Your task to perform on an android device: change alarm snooze length Image 0: 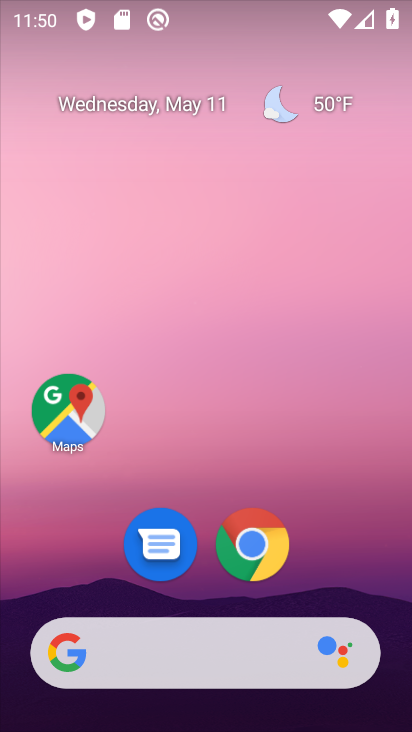
Step 0: click (237, 571)
Your task to perform on an android device: change alarm snooze length Image 1: 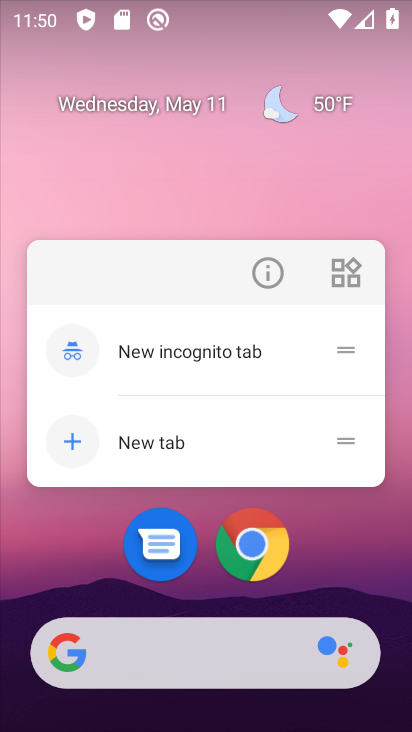
Step 1: click (268, 276)
Your task to perform on an android device: change alarm snooze length Image 2: 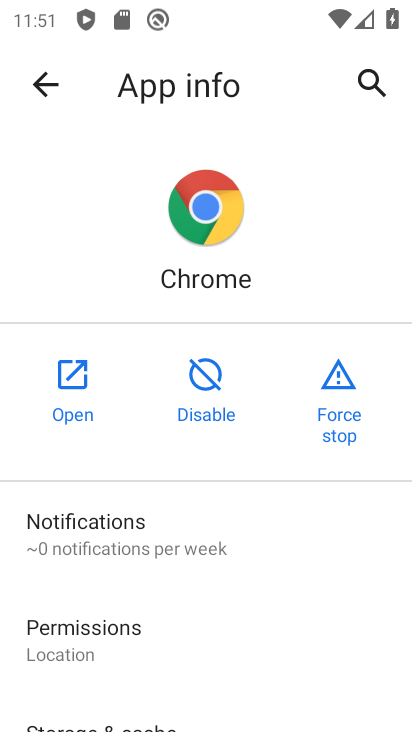
Step 2: press home button
Your task to perform on an android device: change alarm snooze length Image 3: 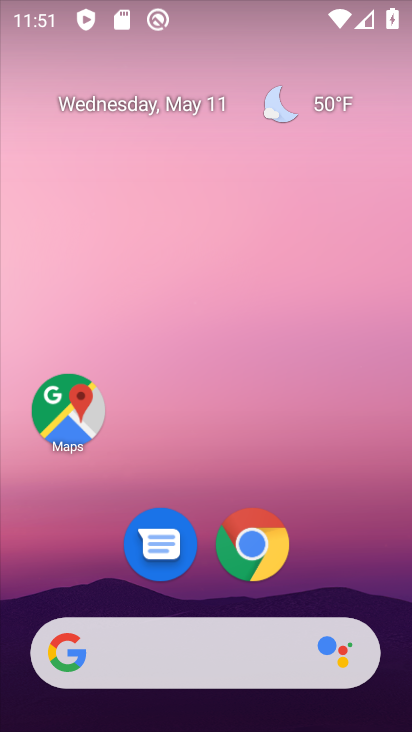
Step 3: drag from (206, 629) to (169, 184)
Your task to perform on an android device: change alarm snooze length Image 4: 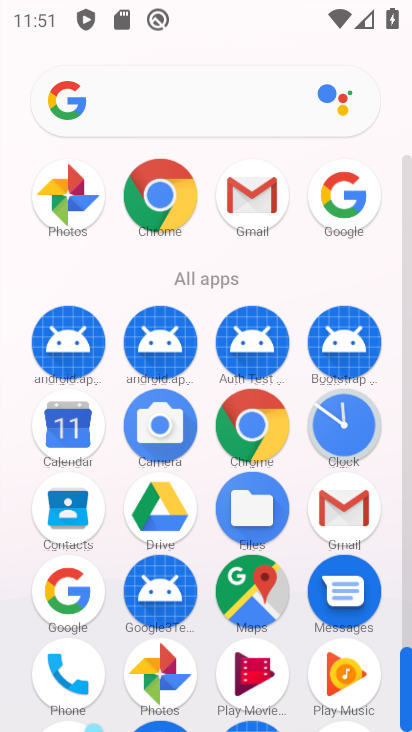
Step 4: click (332, 425)
Your task to perform on an android device: change alarm snooze length Image 5: 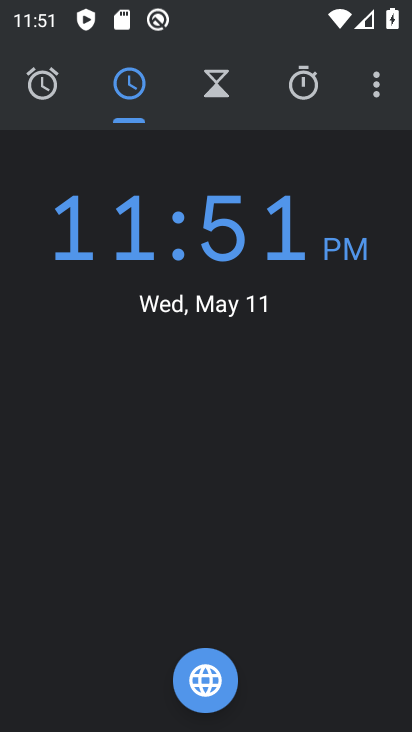
Step 5: click (383, 81)
Your task to perform on an android device: change alarm snooze length Image 6: 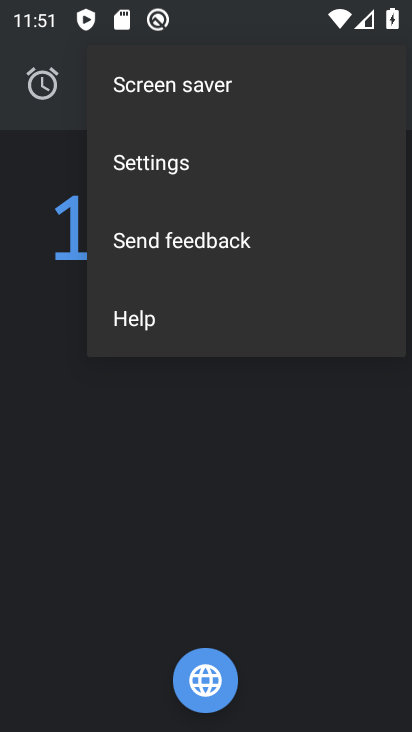
Step 6: click (169, 174)
Your task to perform on an android device: change alarm snooze length Image 7: 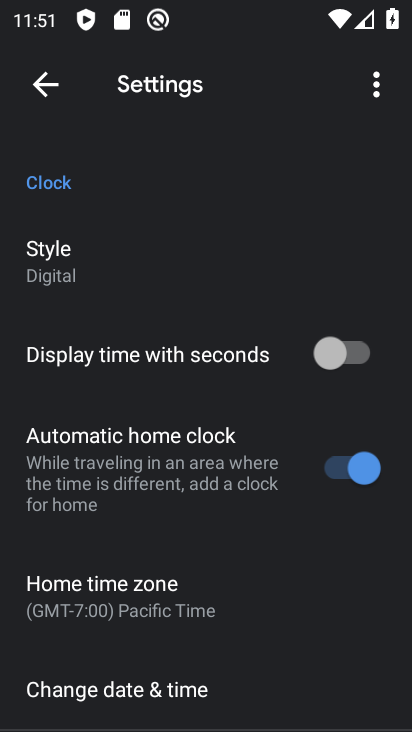
Step 7: drag from (174, 658) to (121, 240)
Your task to perform on an android device: change alarm snooze length Image 8: 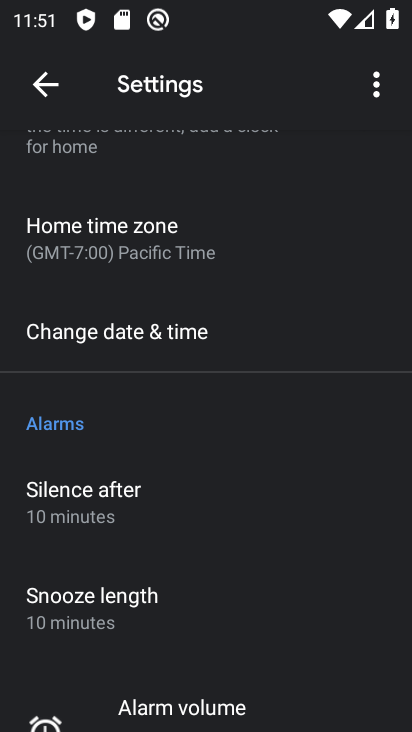
Step 8: click (119, 619)
Your task to perform on an android device: change alarm snooze length Image 9: 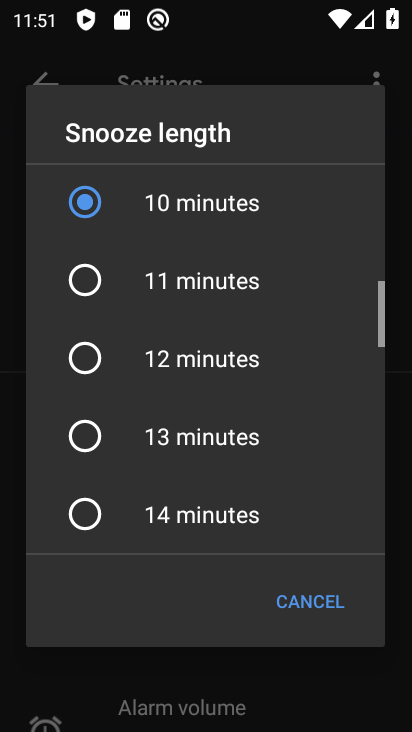
Step 9: click (142, 513)
Your task to perform on an android device: change alarm snooze length Image 10: 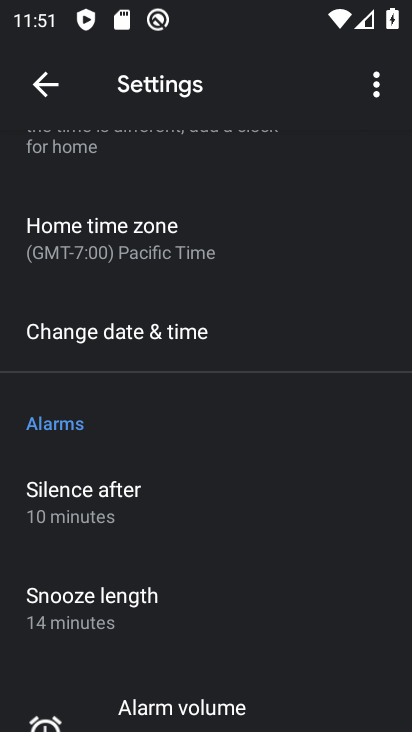
Step 10: task complete